Your task to perform on an android device: Go to internet settings Image 0: 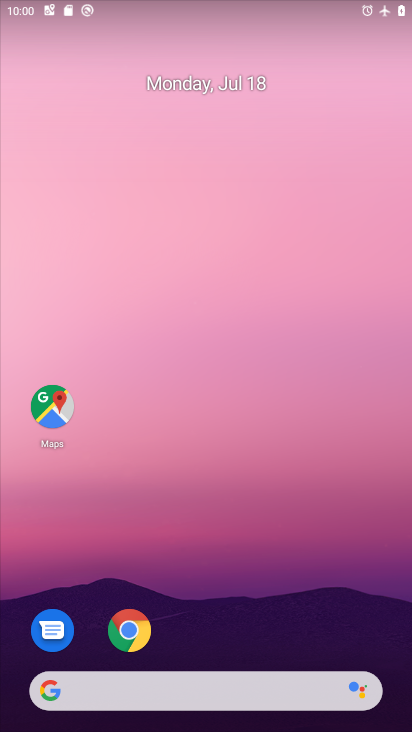
Step 0: drag from (220, 624) to (202, 174)
Your task to perform on an android device: Go to internet settings Image 1: 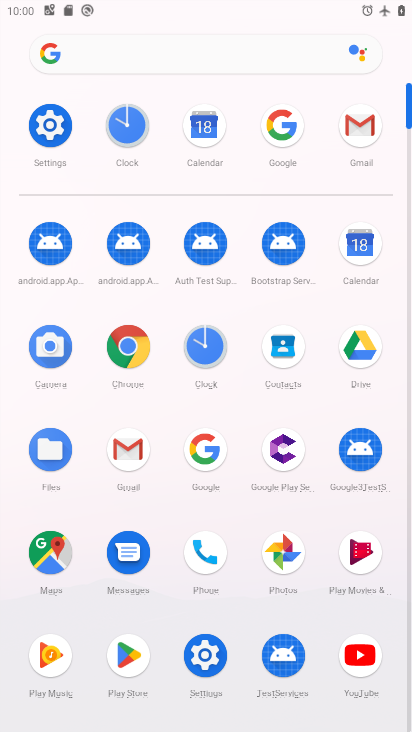
Step 1: click (56, 134)
Your task to perform on an android device: Go to internet settings Image 2: 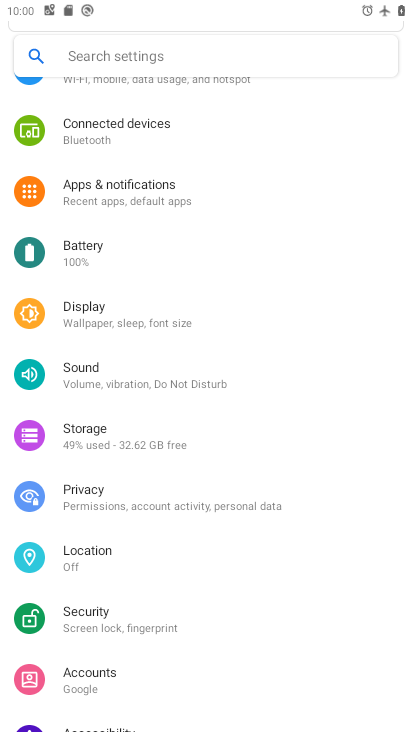
Step 2: drag from (132, 154) to (206, 586)
Your task to perform on an android device: Go to internet settings Image 3: 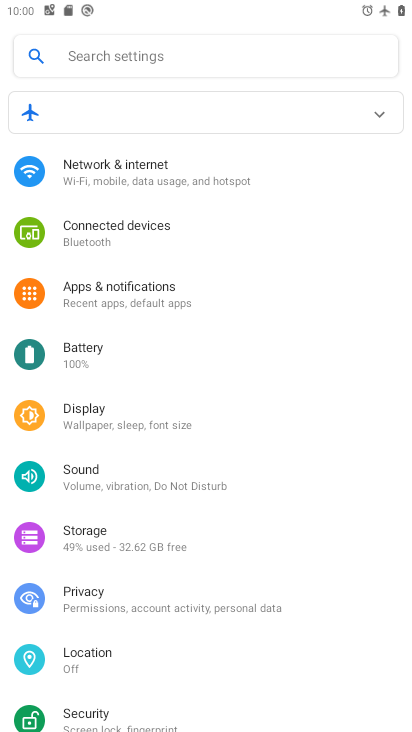
Step 3: click (188, 175)
Your task to perform on an android device: Go to internet settings Image 4: 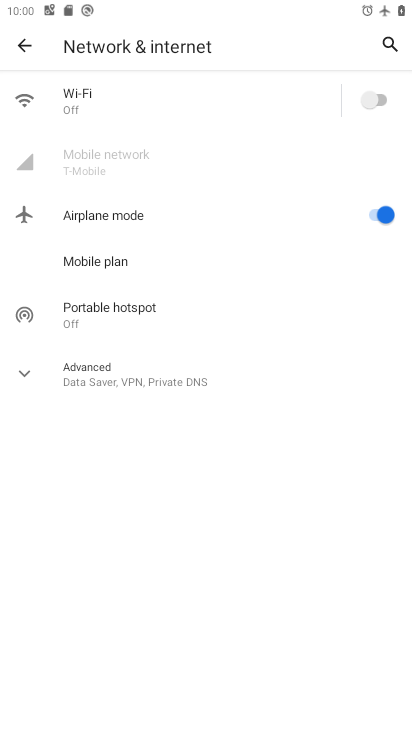
Step 4: task complete